Your task to perform on an android device: delete the emails in spam in the gmail app Image 0: 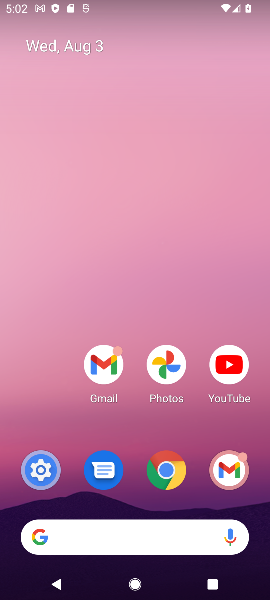
Step 0: drag from (50, 417) to (70, 70)
Your task to perform on an android device: delete the emails in spam in the gmail app Image 1: 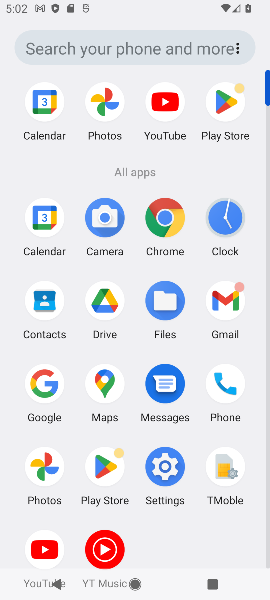
Step 1: click (219, 290)
Your task to perform on an android device: delete the emails in spam in the gmail app Image 2: 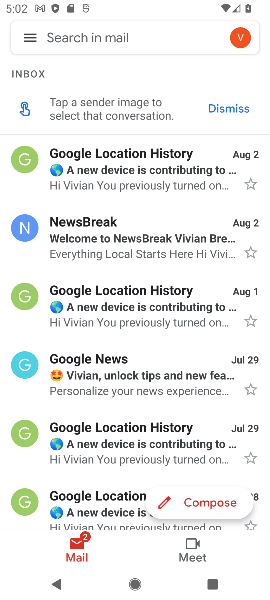
Step 2: click (35, 30)
Your task to perform on an android device: delete the emails in spam in the gmail app Image 3: 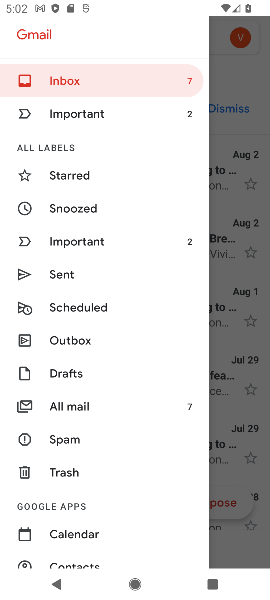
Step 3: click (88, 423)
Your task to perform on an android device: delete the emails in spam in the gmail app Image 4: 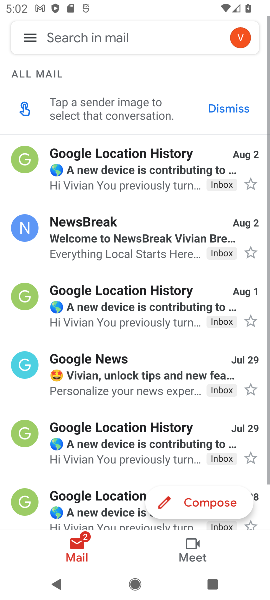
Step 4: click (27, 33)
Your task to perform on an android device: delete the emails in spam in the gmail app Image 5: 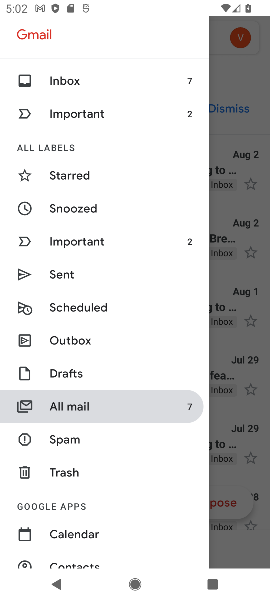
Step 5: click (56, 442)
Your task to perform on an android device: delete the emails in spam in the gmail app Image 6: 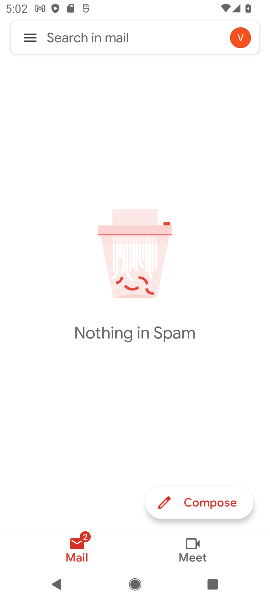
Step 6: task complete